Your task to perform on an android device: Open Youtube and go to "Your channel" Image 0: 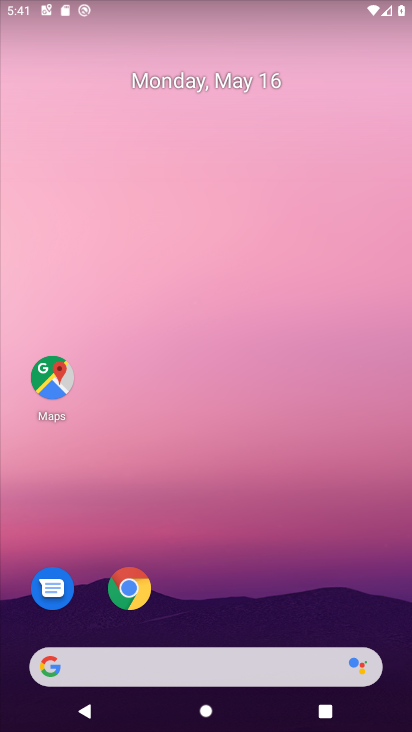
Step 0: drag from (228, 572) to (113, 26)
Your task to perform on an android device: Open Youtube and go to "Your channel" Image 1: 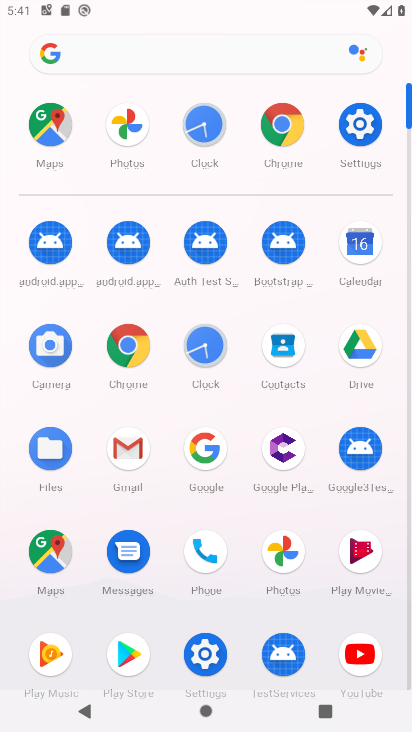
Step 1: click (368, 651)
Your task to perform on an android device: Open Youtube and go to "Your channel" Image 2: 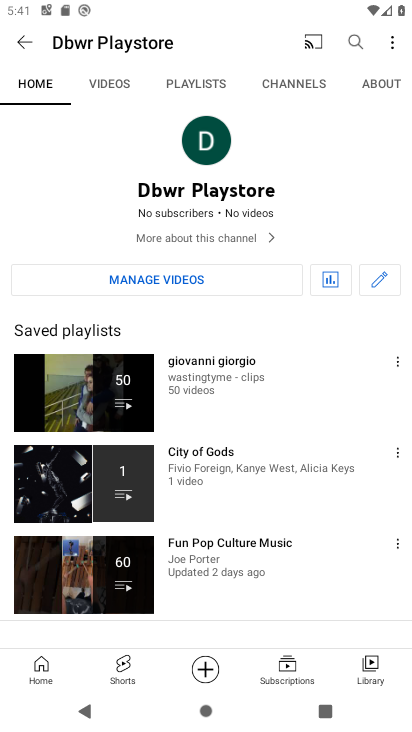
Step 2: task complete